Your task to perform on an android device: What's the news in Nepal? Image 0: 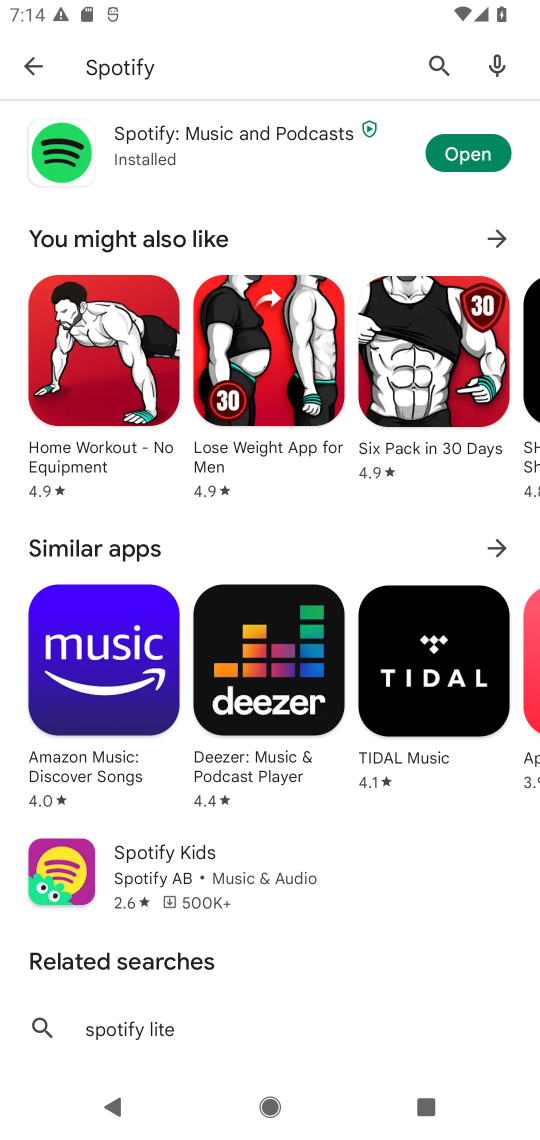
Step 0: press home button
Your task to perform on an android device: What's the news in Nepal? Image 1: 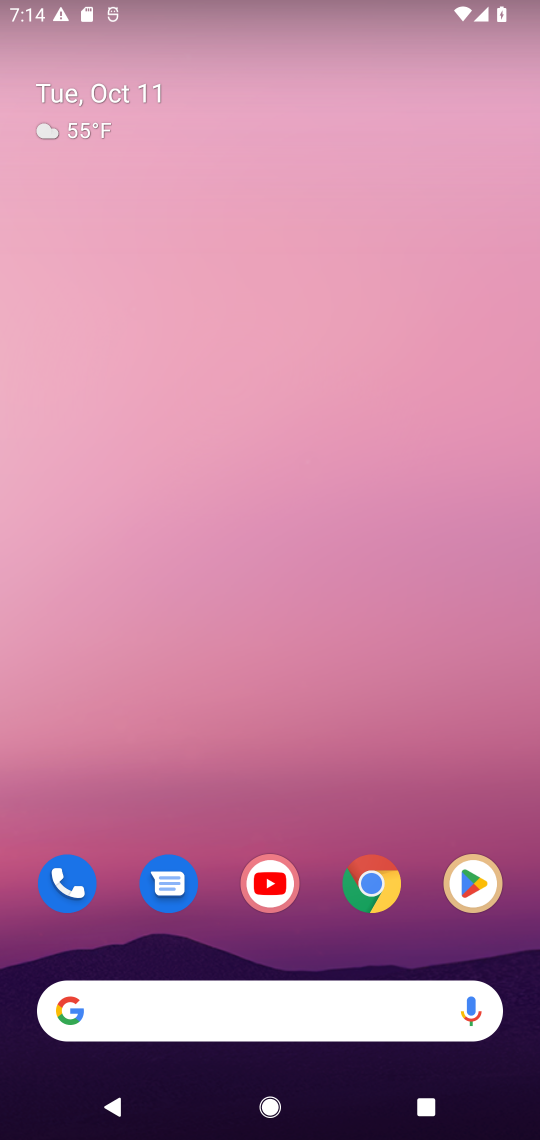
Step 1: drag from (392, 609) to (438, 40)
Your task to perform on an android device: What's the news in Nepal? Image 2: 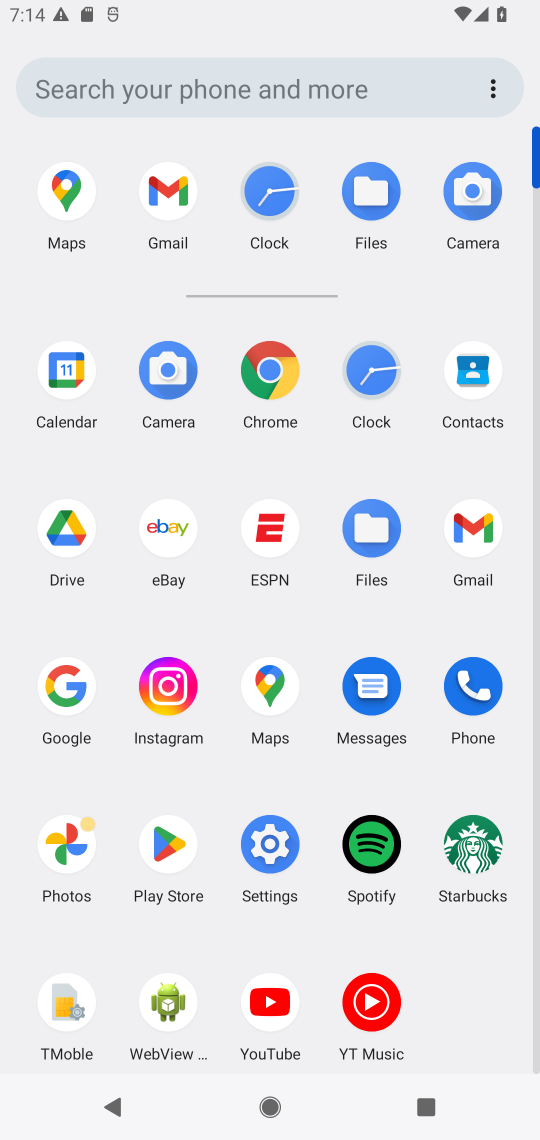
Step 2: click (275, 377)
Your task to perform on an android device: What's the news in Nepal? Image 3: 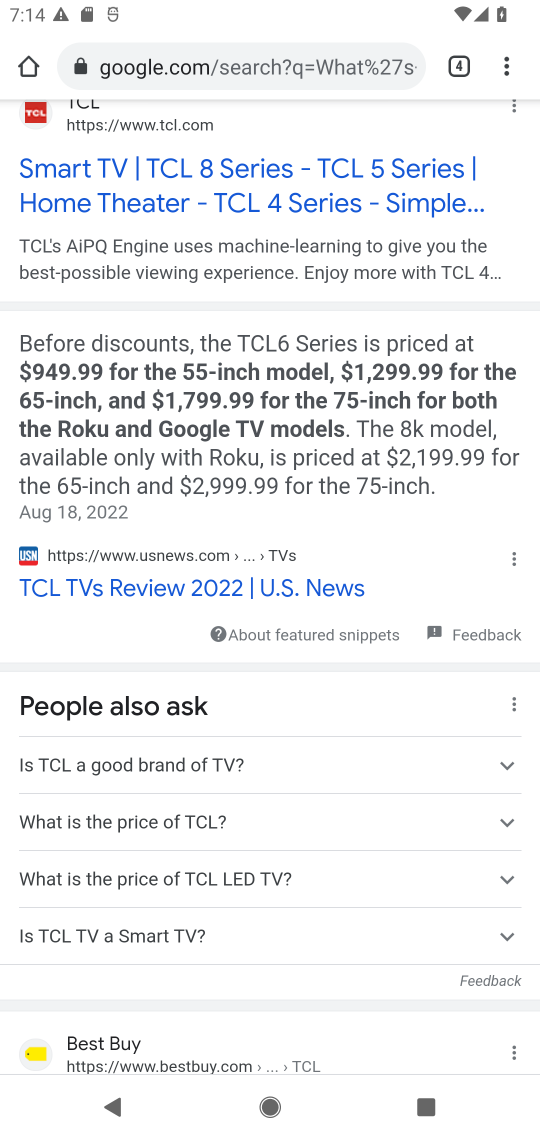
Step 3: click (298, 63)
Your task to perform on an android device: What's the news in Nepal? Image 4: 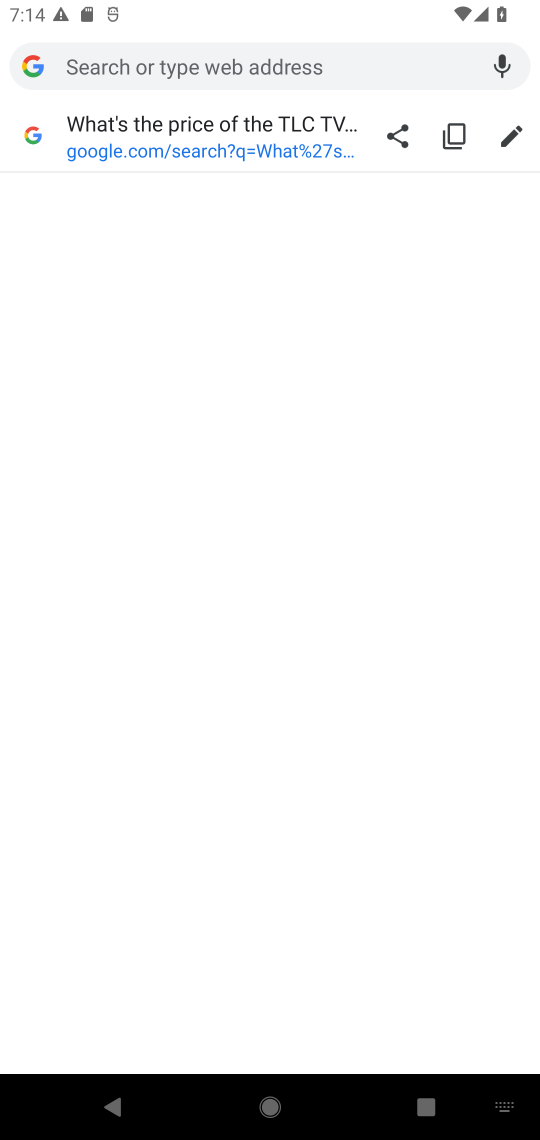
Step 4: type "What's the news in Nepal?"
Your task to perform on an android device: What's the news in Nepal? Image 5: 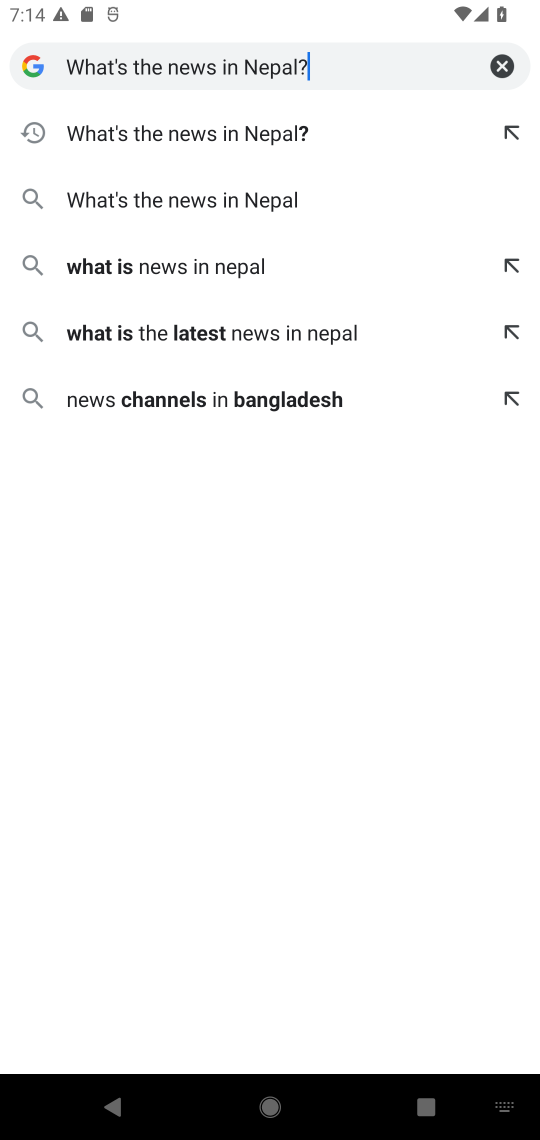
Step 5: press enter
Your task to perform on an android device: What's the news in Nepal? Image 6: 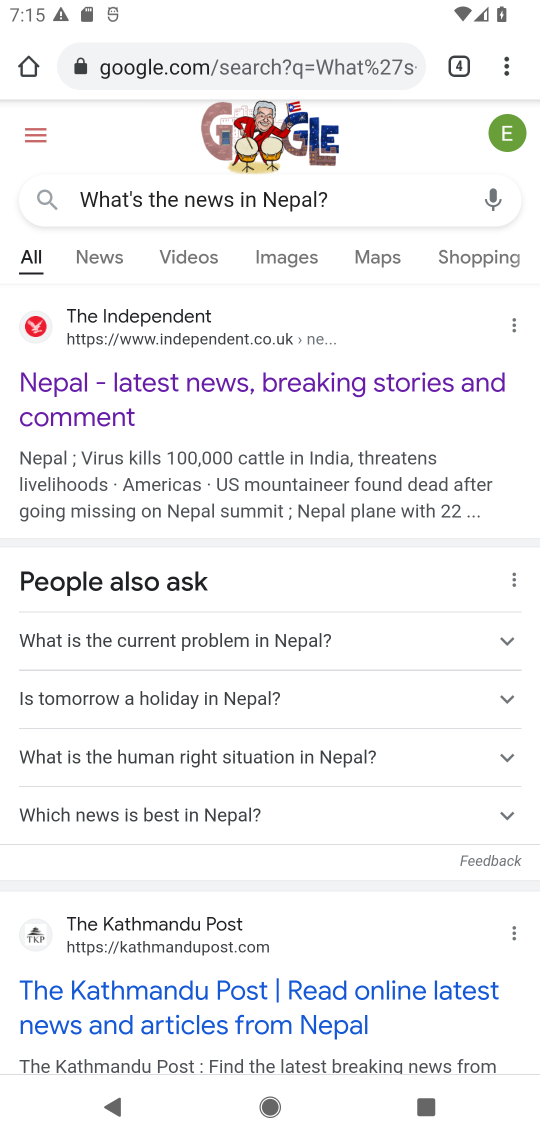
Step 6: click (76, 392)
Your task to perform on an android device: What's the news in Nepal? Image 7: 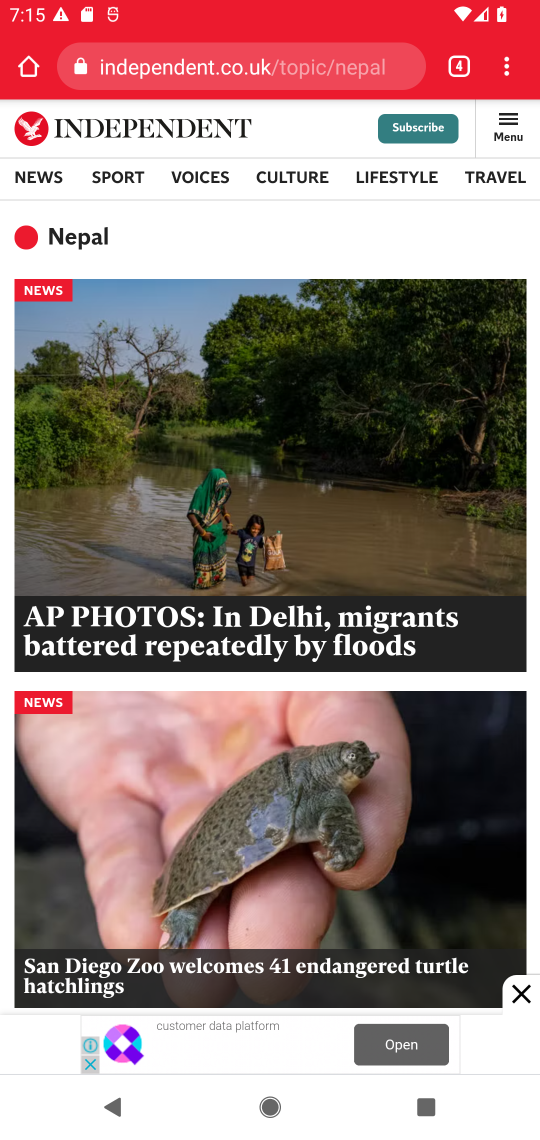
Step 7: task complete